Your task to perform on an android device: Add razer blade to the cart on bestbuy, then select checkout. Image 0: 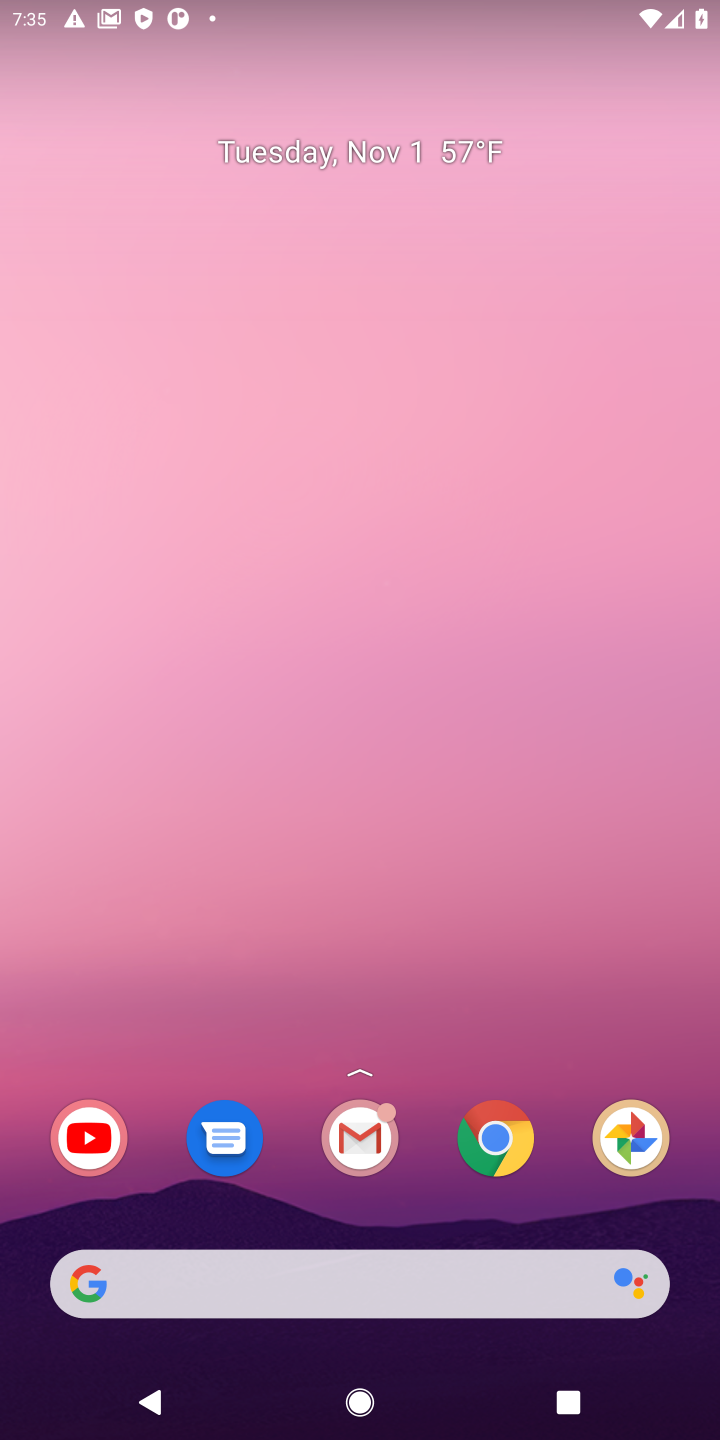
Step 0: click (498, 1129)
Your task to perform on an android device: Add razer blade to the cart on bestbuy, then select checkout. Image 1: 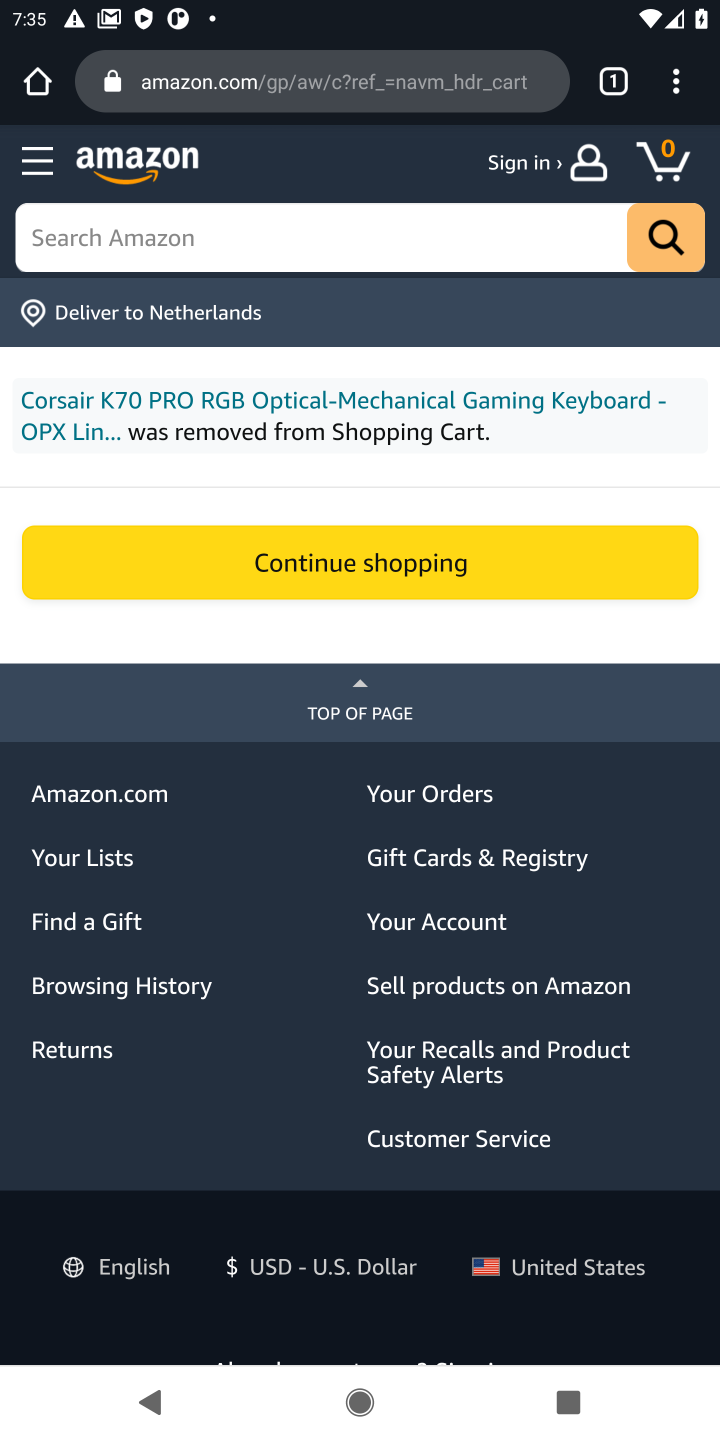
Step 1: click (298, 95)
Your task to perform on an android device: Add razer blade to the cart on bestbuy, then select checkout. Image 2: 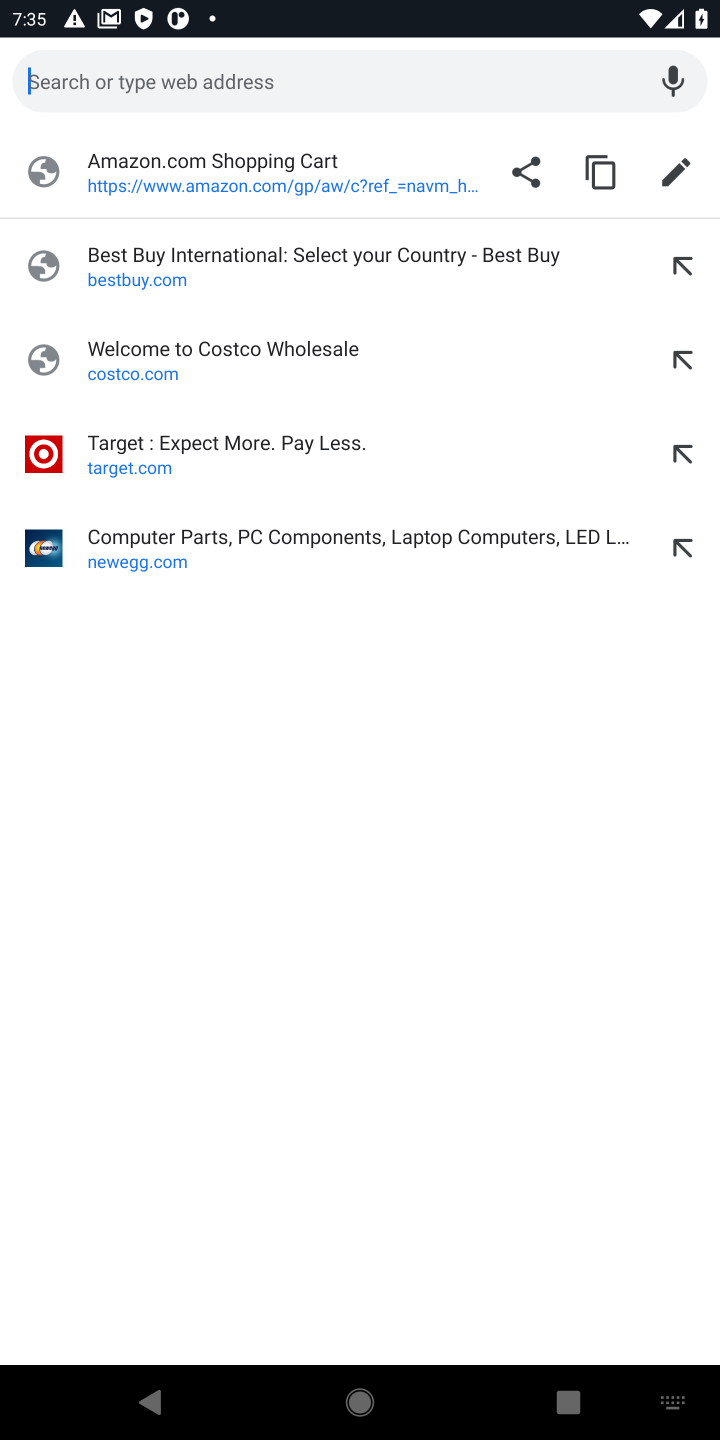
Step 2: click (163, 92)
Your task to perform on an android device: Add razer blade to the cart on bestbuy, then select checkout. Image 3: 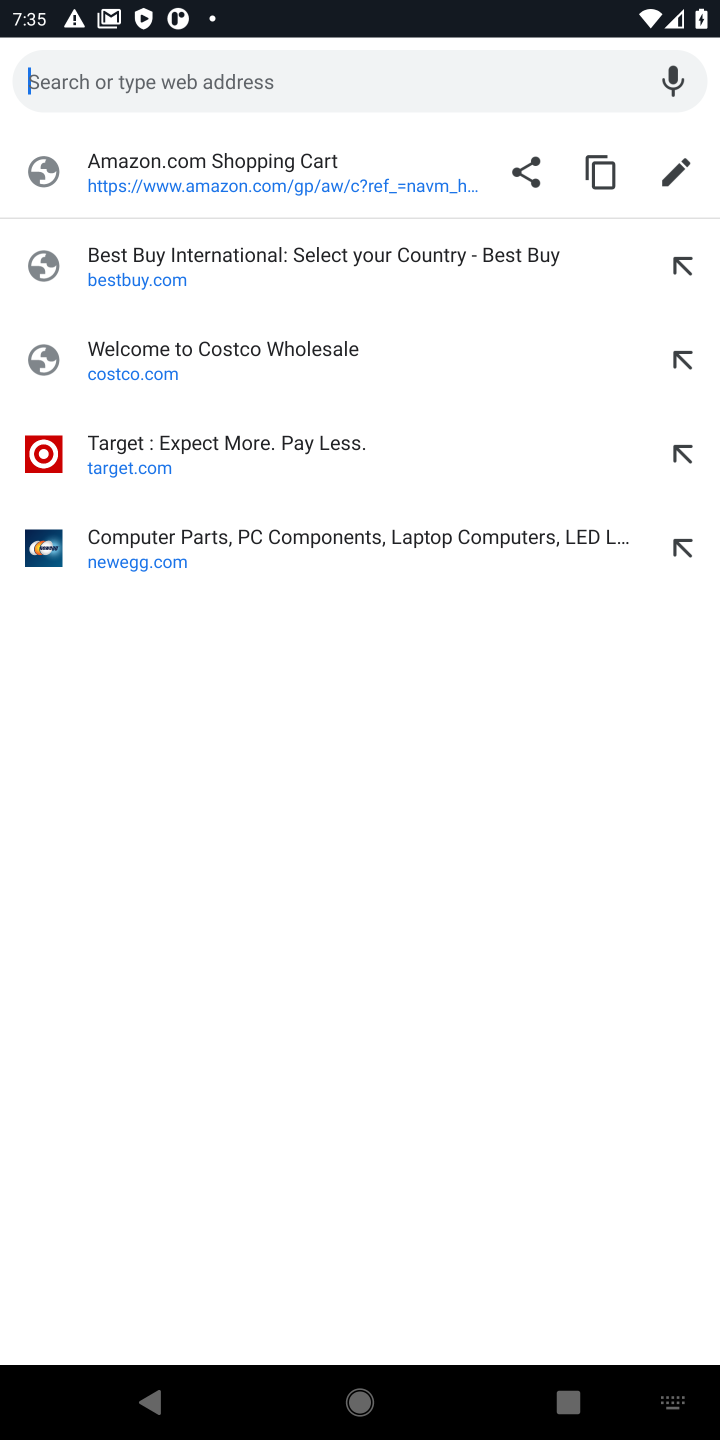
Step 3: click (137, 86)
Your task to perform on an android device: Add razer blade to the cart on bestbuy, then select checkout. Image 4: 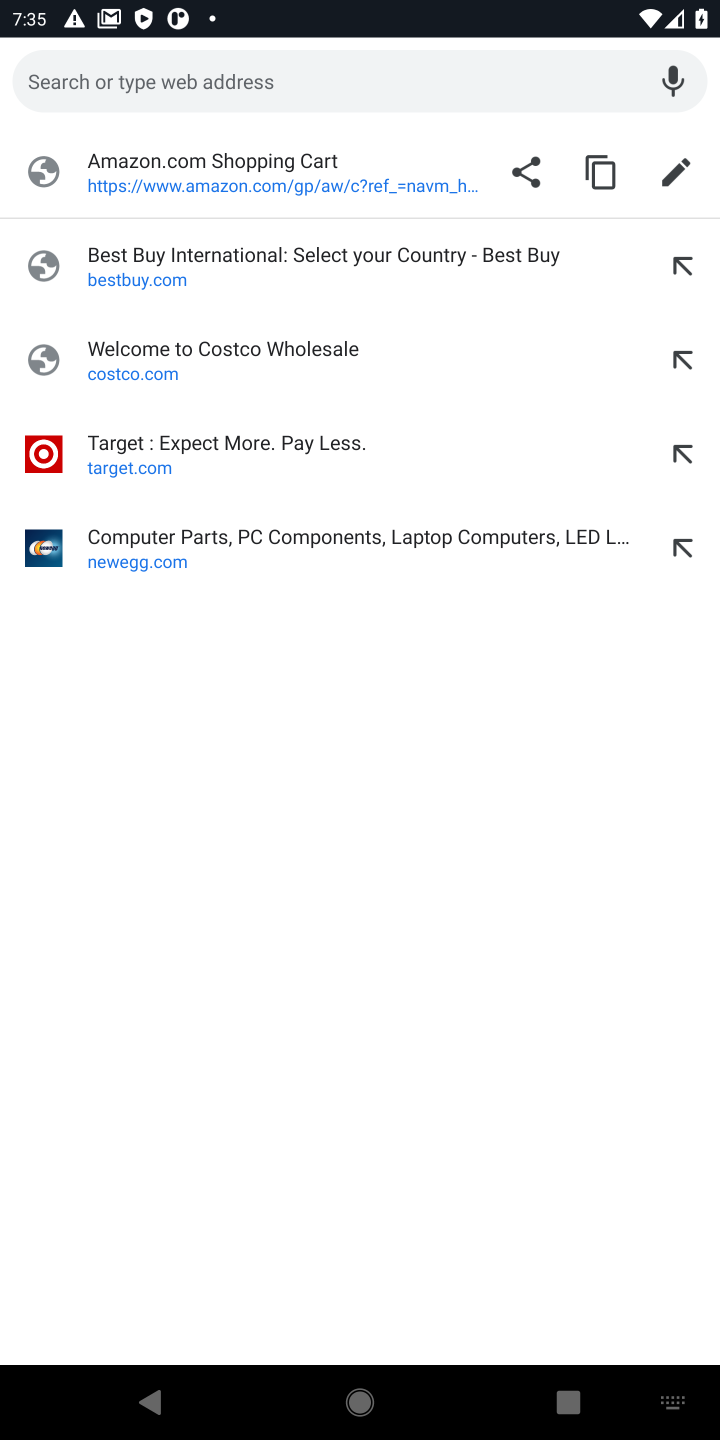
Step 4: type "bestbuy.com"
Your task to perform on an android device: Add razer blade to the cart on bestbuy, then select checkout. Image 5: 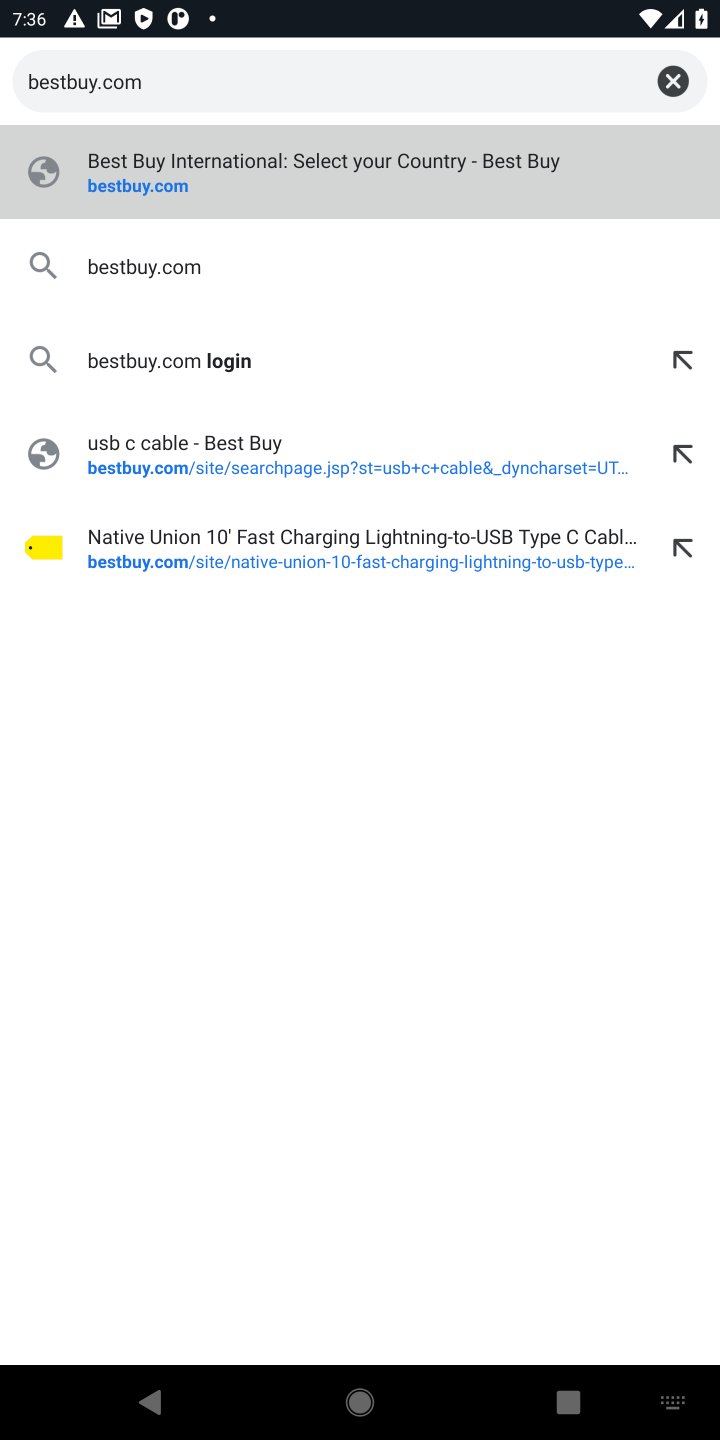
Step 5: click (128, 197)
Your task to perform on an android device: Add razer blade to the cart on bestbuy, then select checkout. Image 6: 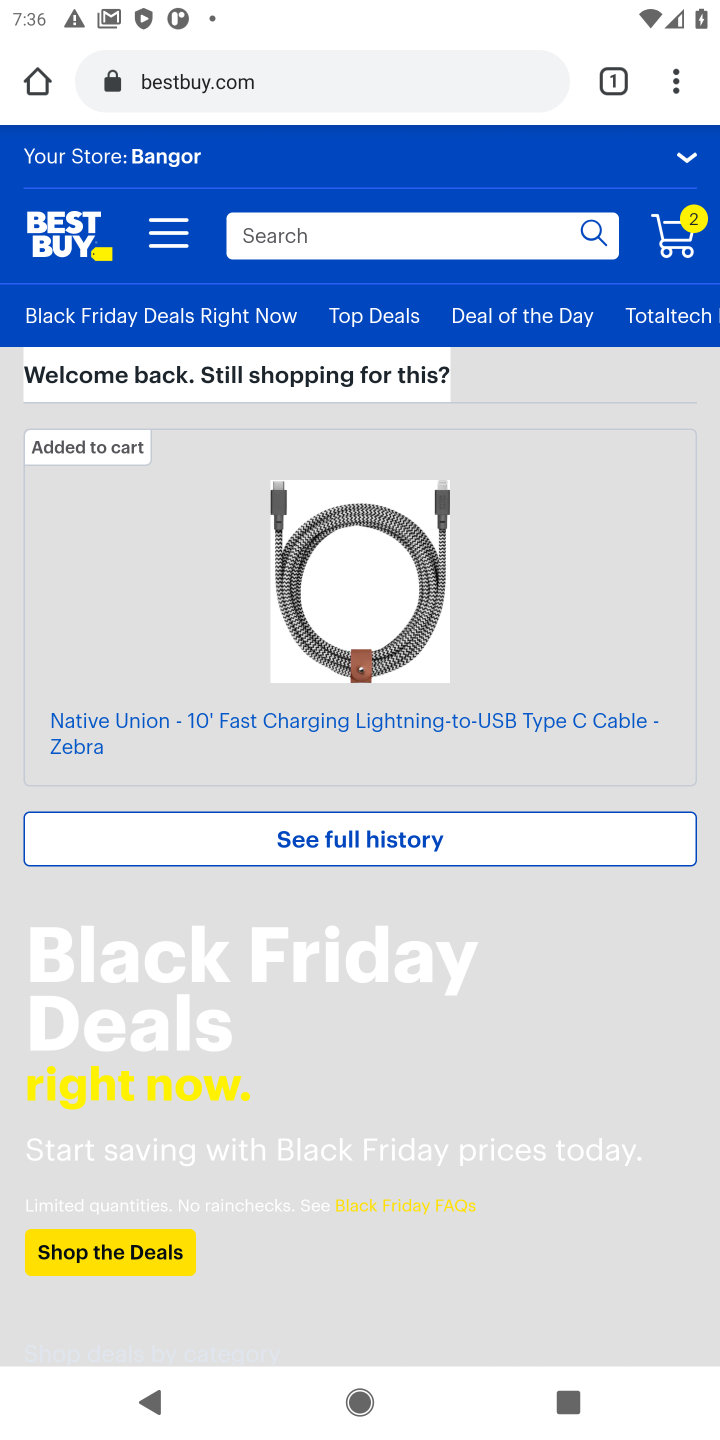
Step 6: click (340, 234)
Your task to perform on an android device: Add razer blade to the cart on bestbuy, then select checkout. Image 7: 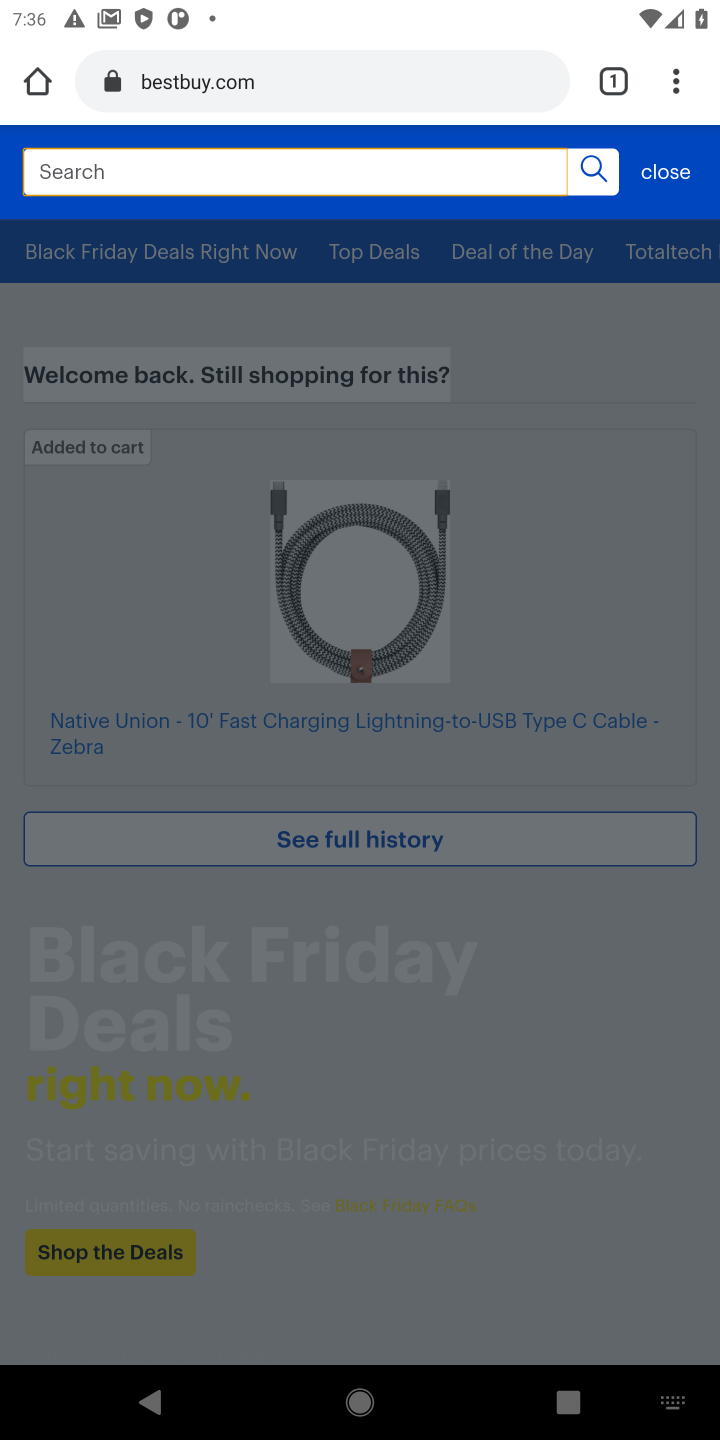
Step 7: type "razer blade"
Your task to perform on an android device: Add razer blade to the cart on bestbuy, then select checkout. Image 8: 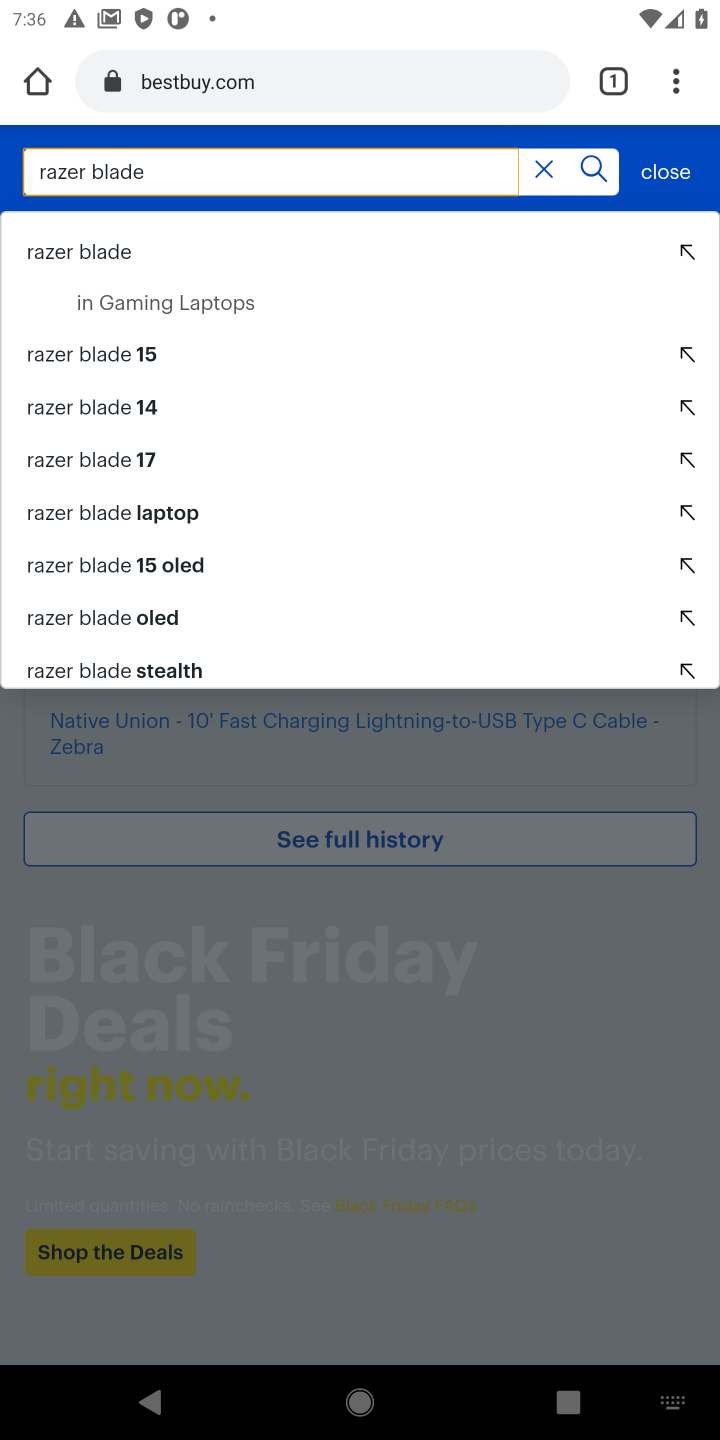
Step 8: click (69, 249)
Your task to perform on an android device: Add razer blade to the cart on bestbuy, then select checkout. Image 9: 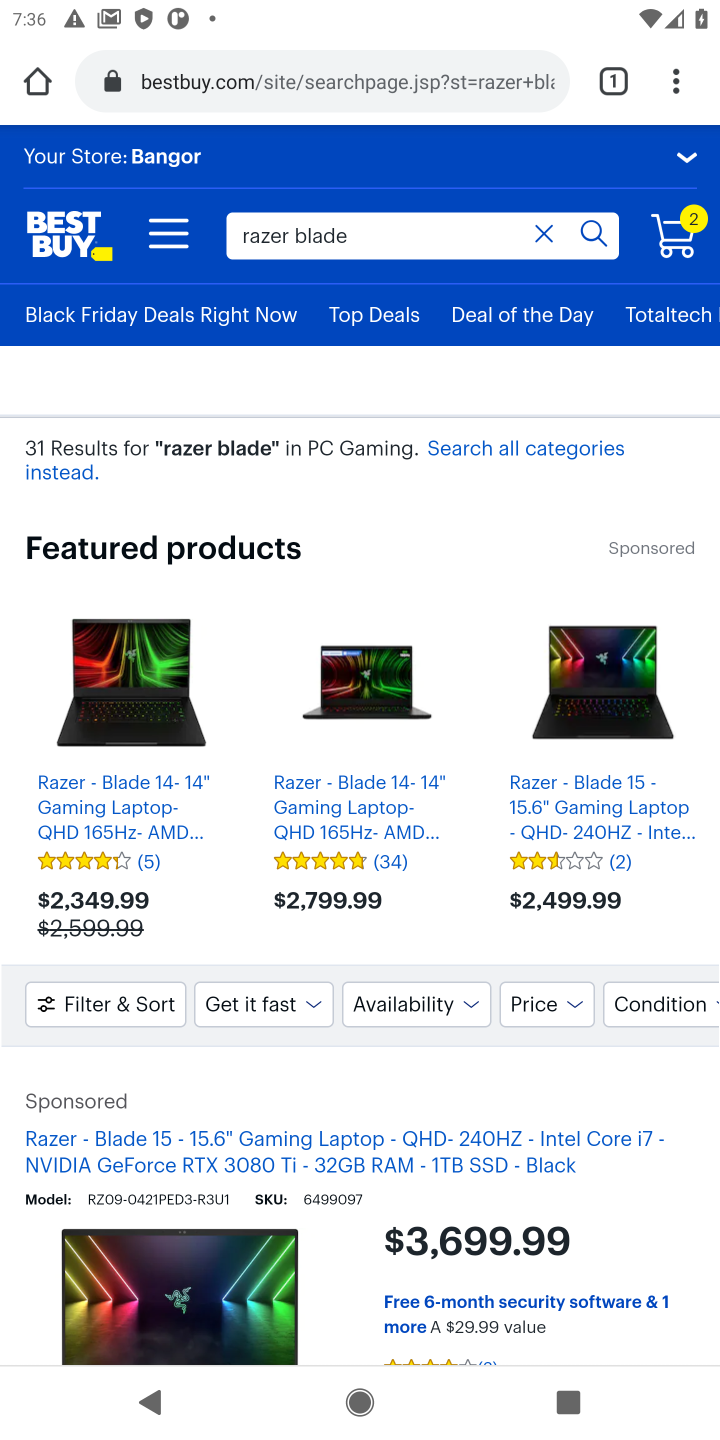
Step 9: drag from (323, 1062) to (283, 655)
Your task to perform on an android device: Add razer blade to the cart on bestbuy, then select checkout. Image 10: 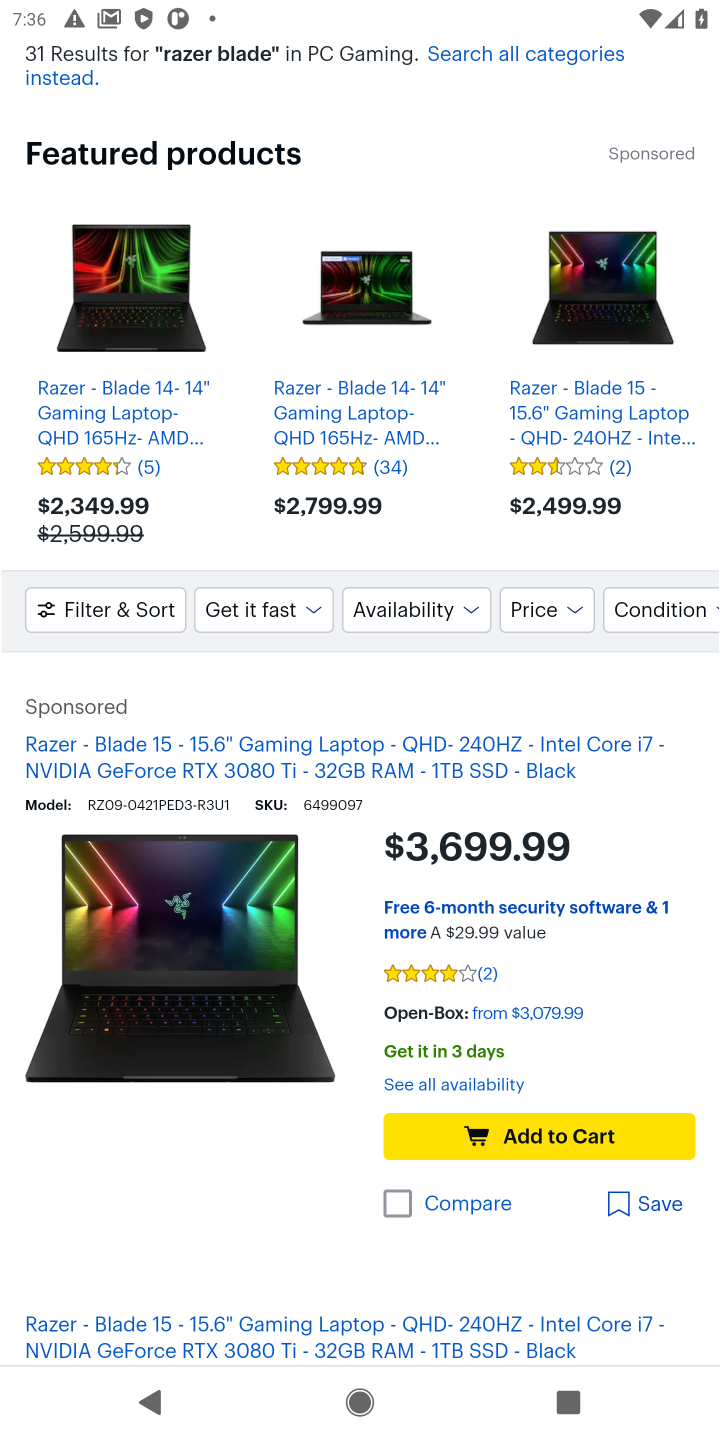
Step 10: click (241, 976)
Your task to perform on an android device: Add razer blade to the cart on bestbuy, then select checkout. Image 11: 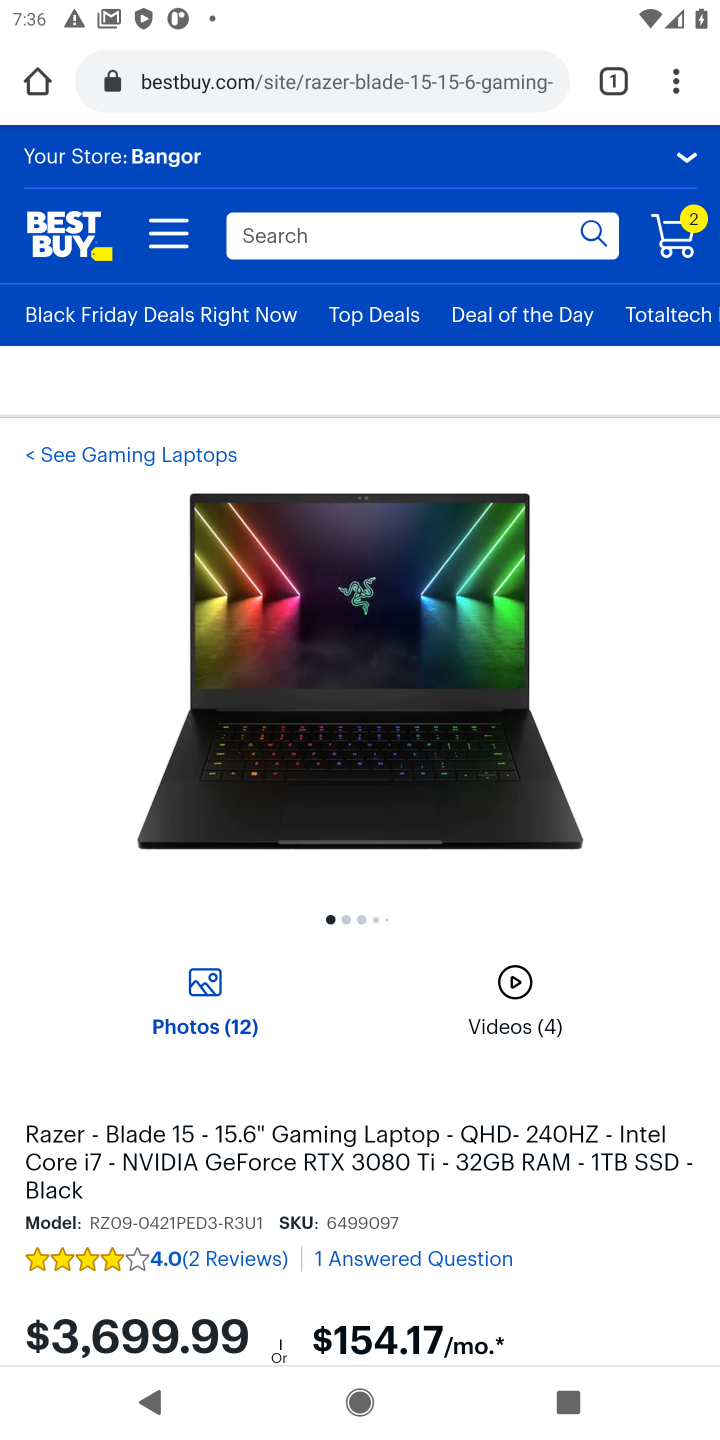
Step 11: drag from (365, 1107) to (324, 508)
Your task to perform on an android device: Add razer blade to the cart on bestbuy, then select checkout. Image 12: 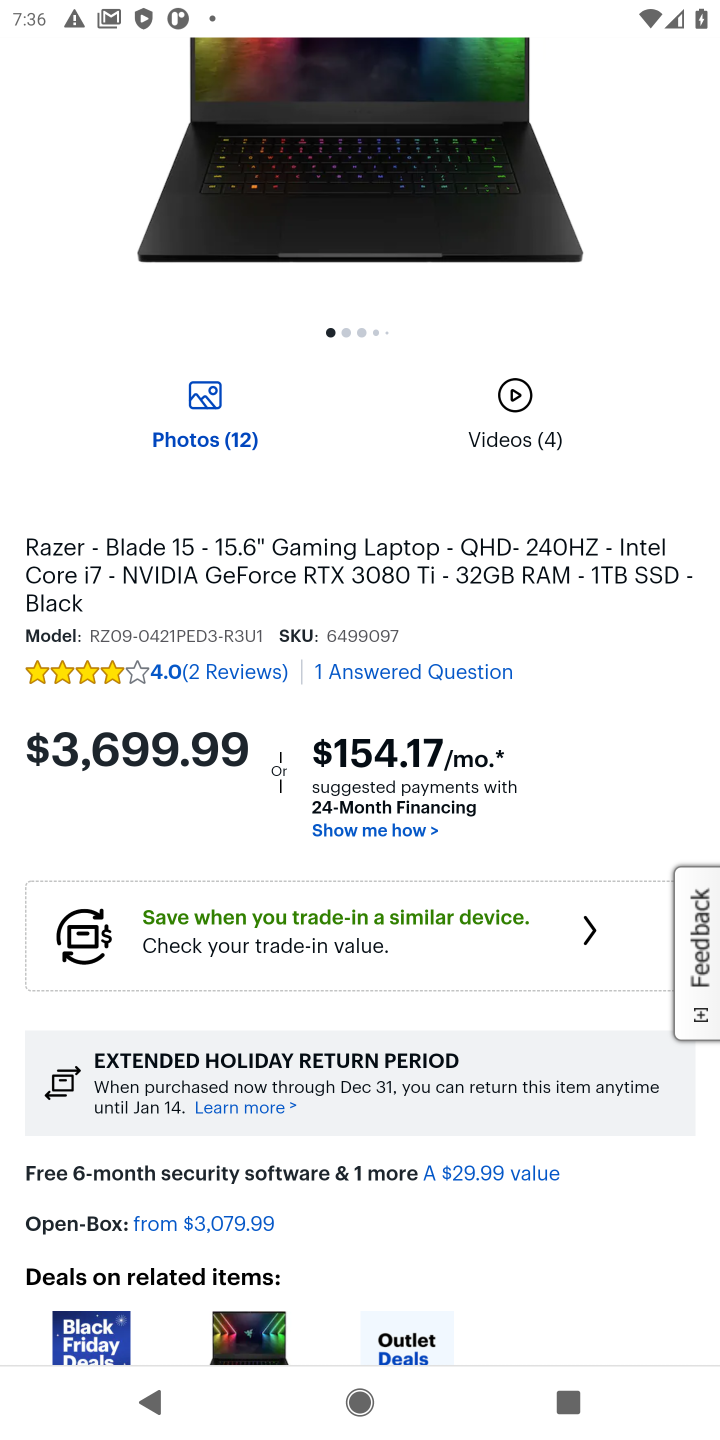
Step 12: drag from (310, 828) to (334, 390)
Your task to perform on an android device: Add razer blade to the cart on bestbuy, then select checkout. Image 13: 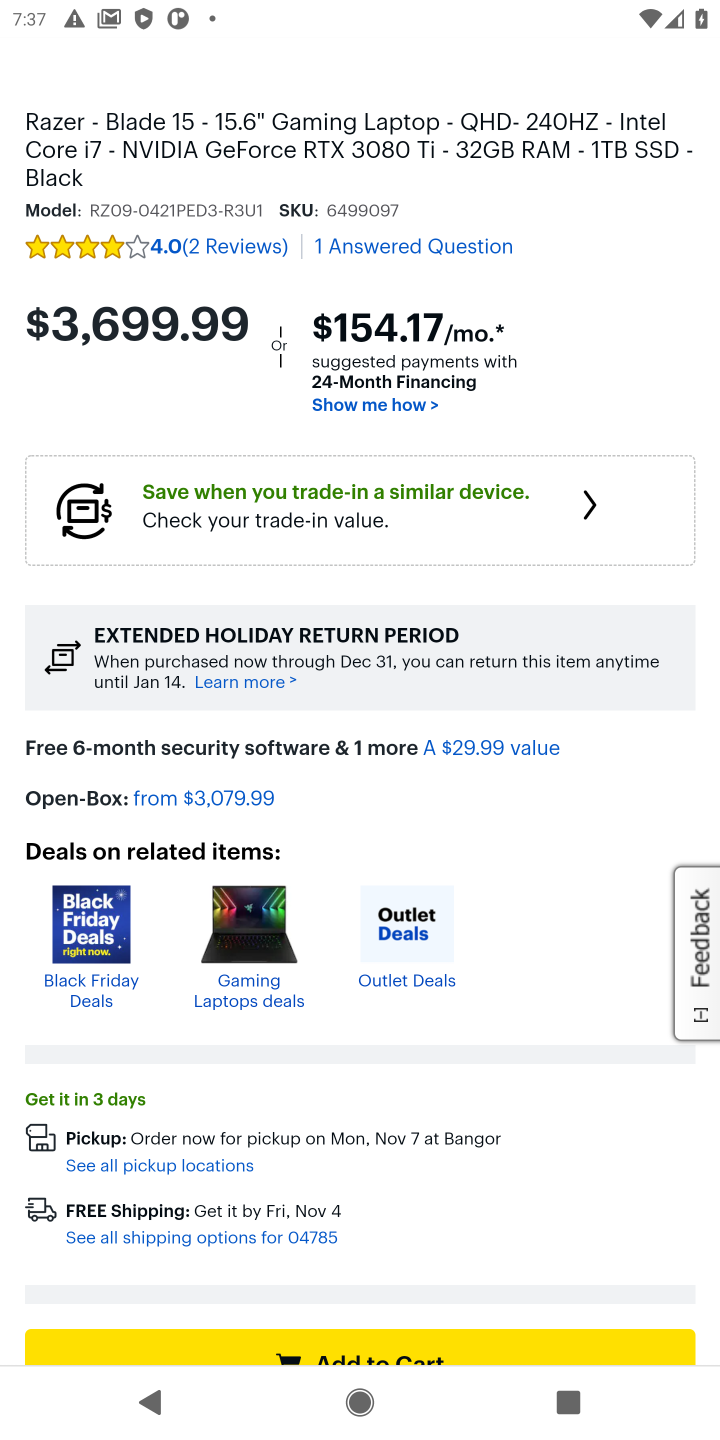
Step 13: drag from (340, 1031) to (364, 512)
Your task to perform on an android device: Add razer blade to the cart on bestbuy, then select checkout. Image 14: 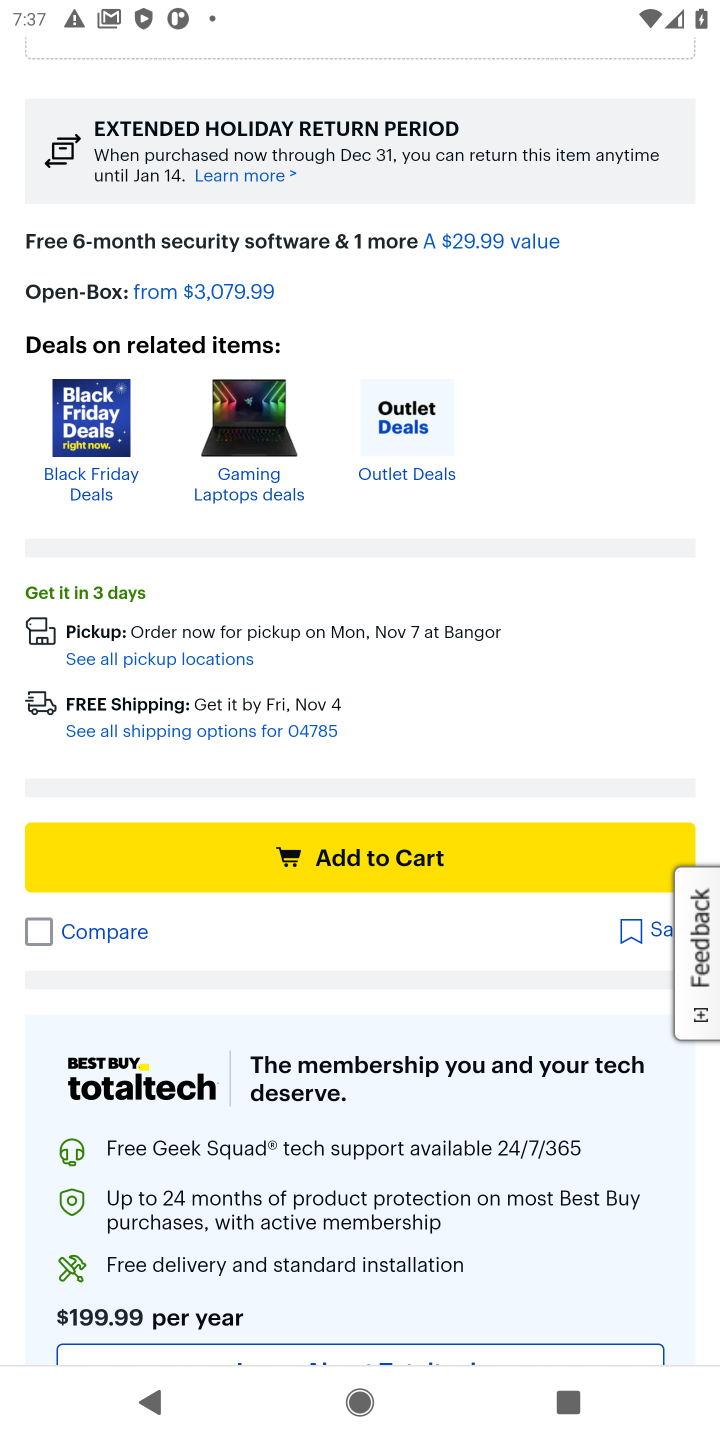
Step 14: click (365, 860)
Your task to perform on an android device: Add razer blade to the cart on bestbuy, then select checkout. Image 15: 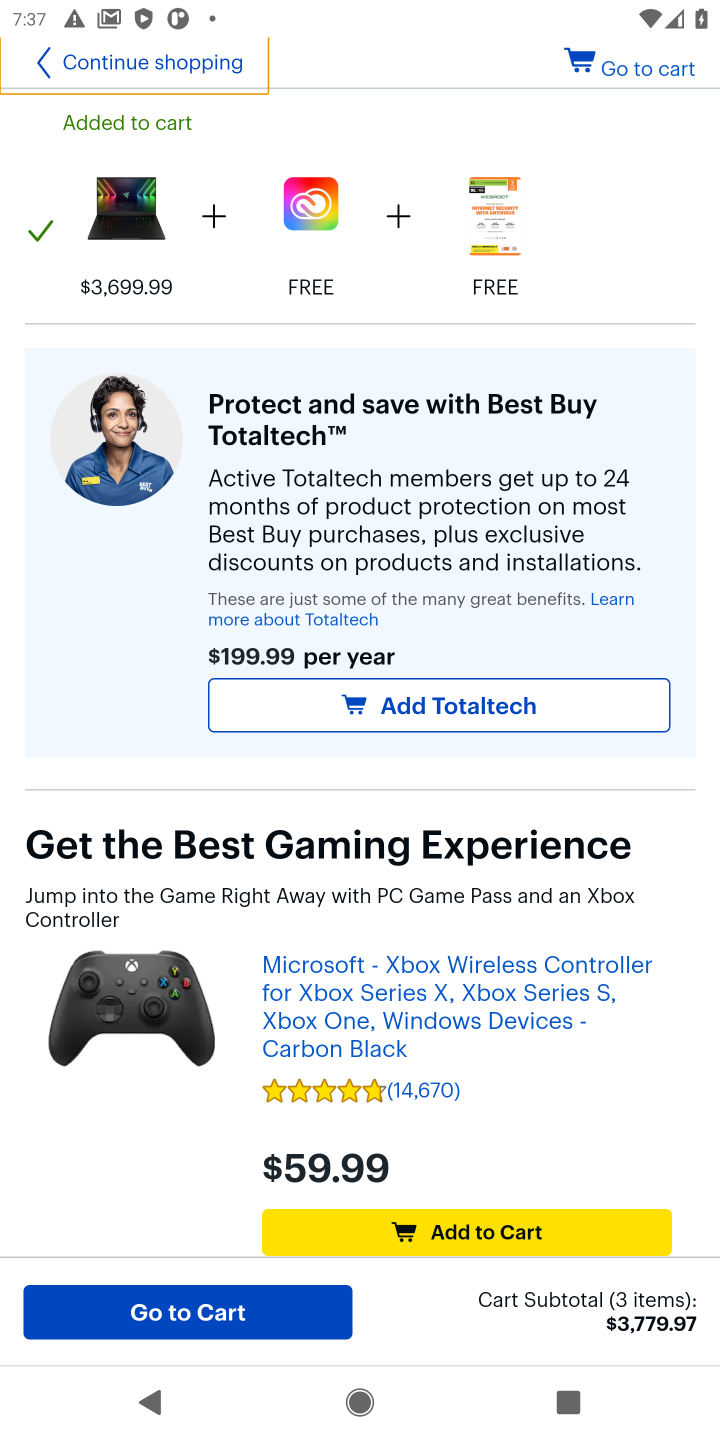
Step 15: click (157, 1319)
Your task to perform on an android device: Add razer blade to the cart on bestbuy, then select checkout. Image 16: 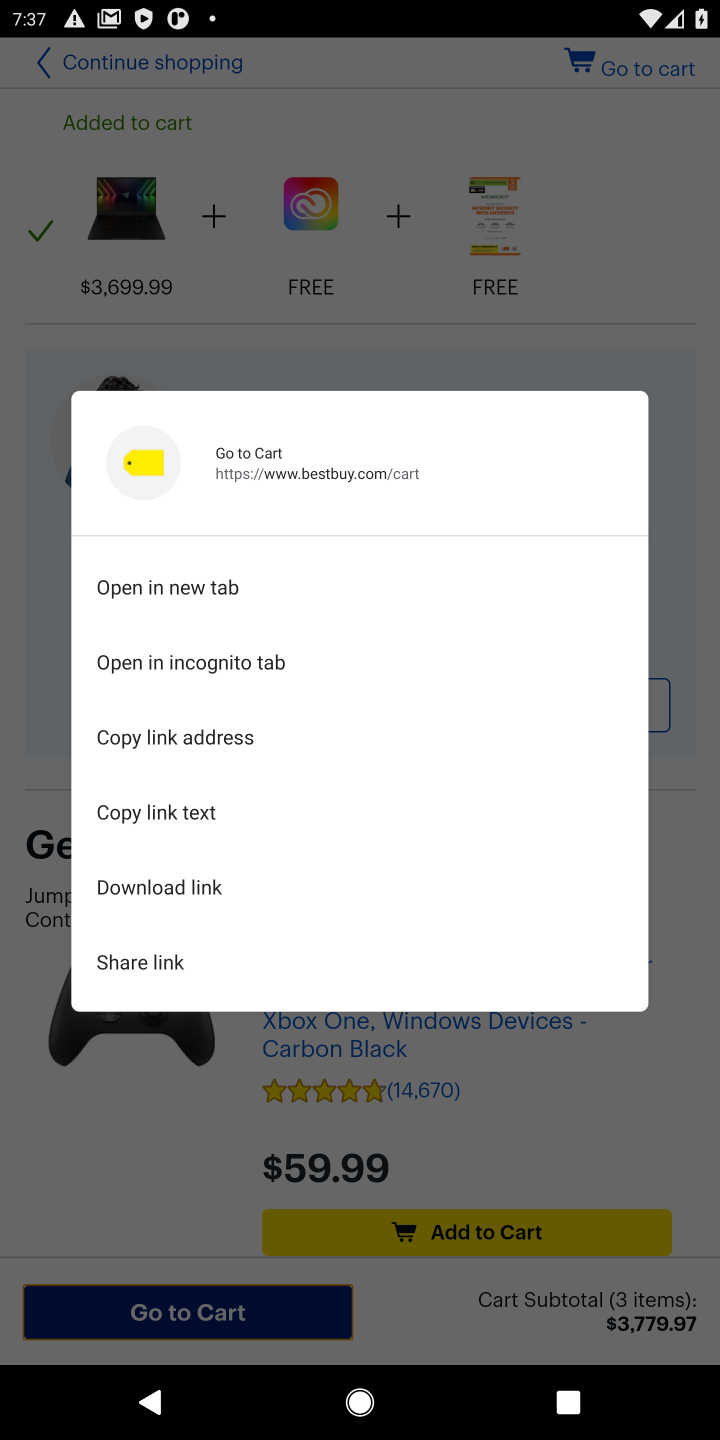
Step 16: click (157, 1319)
Your task to perform on an android device: Add razer blade to the cart on bestbuy, then select checkout. Image 17: 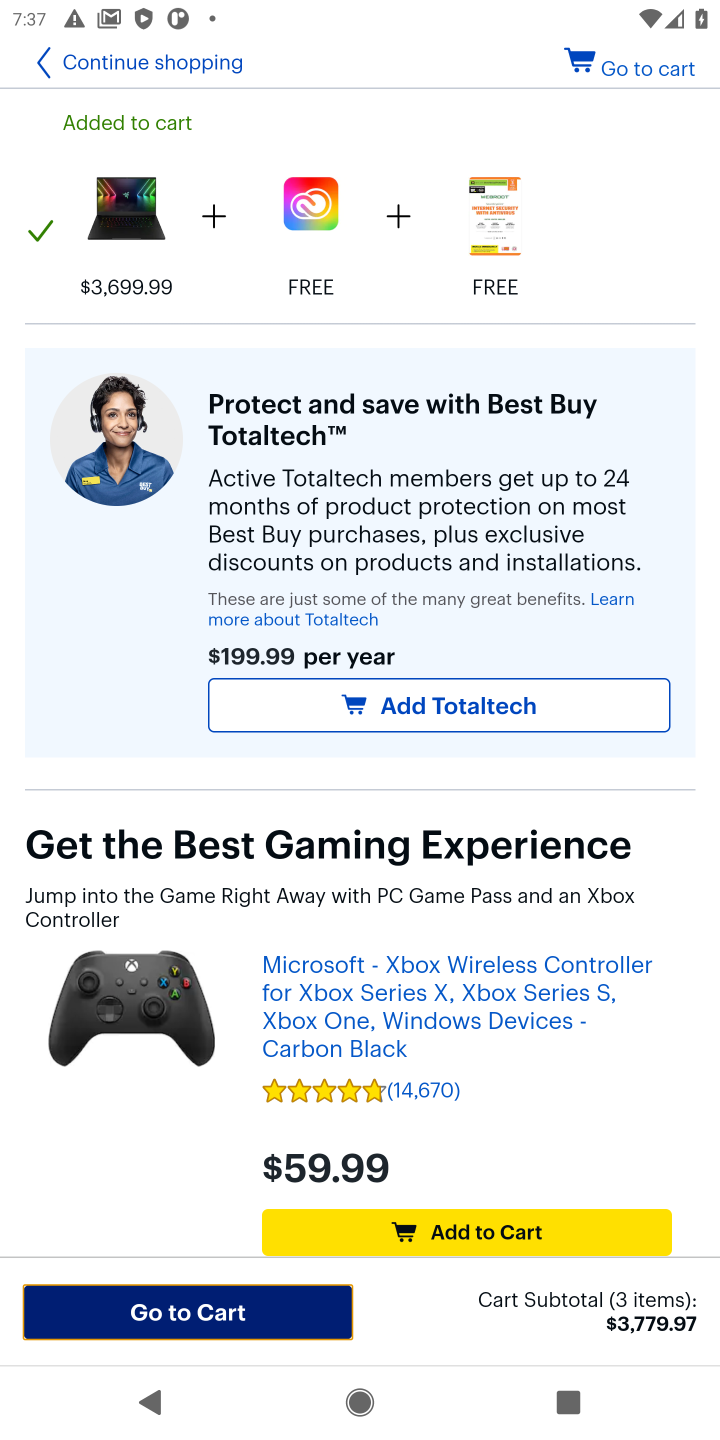
Step 17: click (185, 1313)
Your task to perform on an android device: Add razer blade to the cart on bestbuy, then select checkout. Image 18: 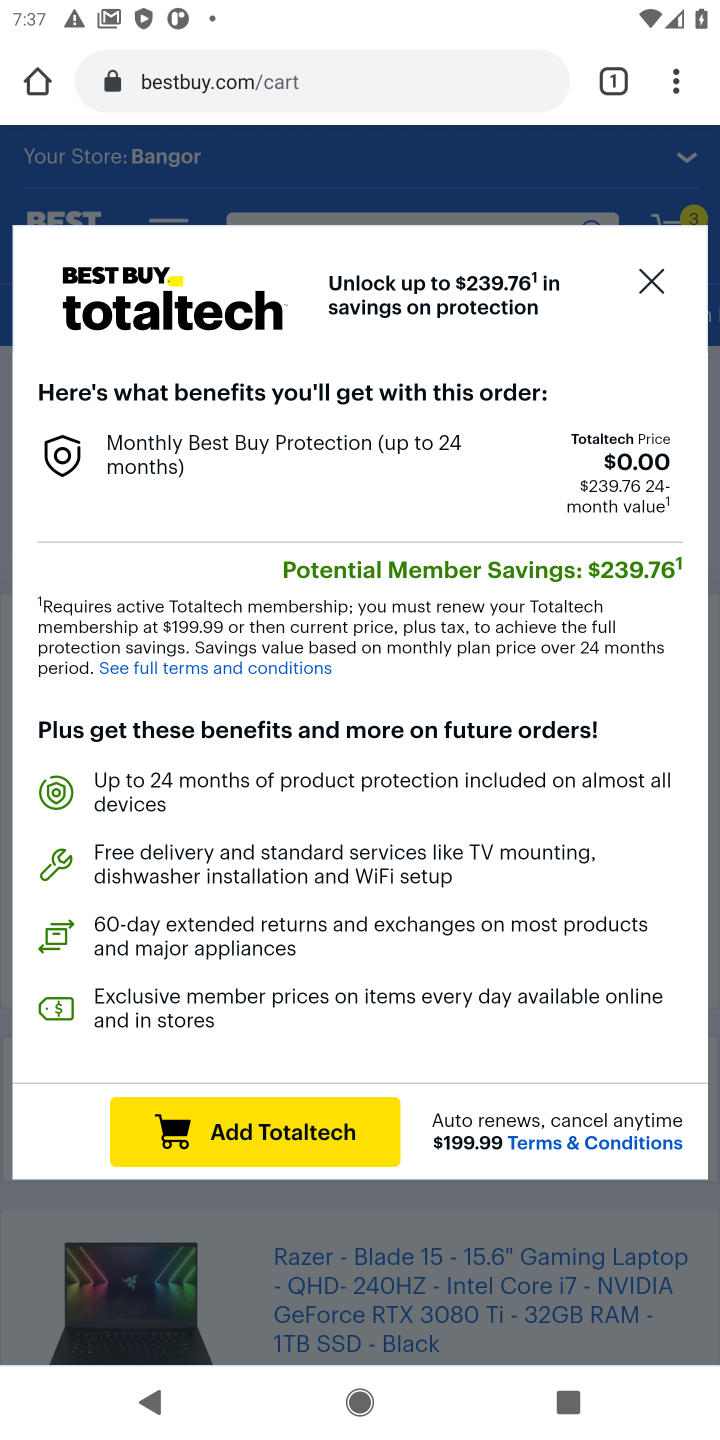
Step 18: click (650, 284)
Your task to perform on an android device: Add razer blade to the cart on bestbuy, then select checkout. Image 19: 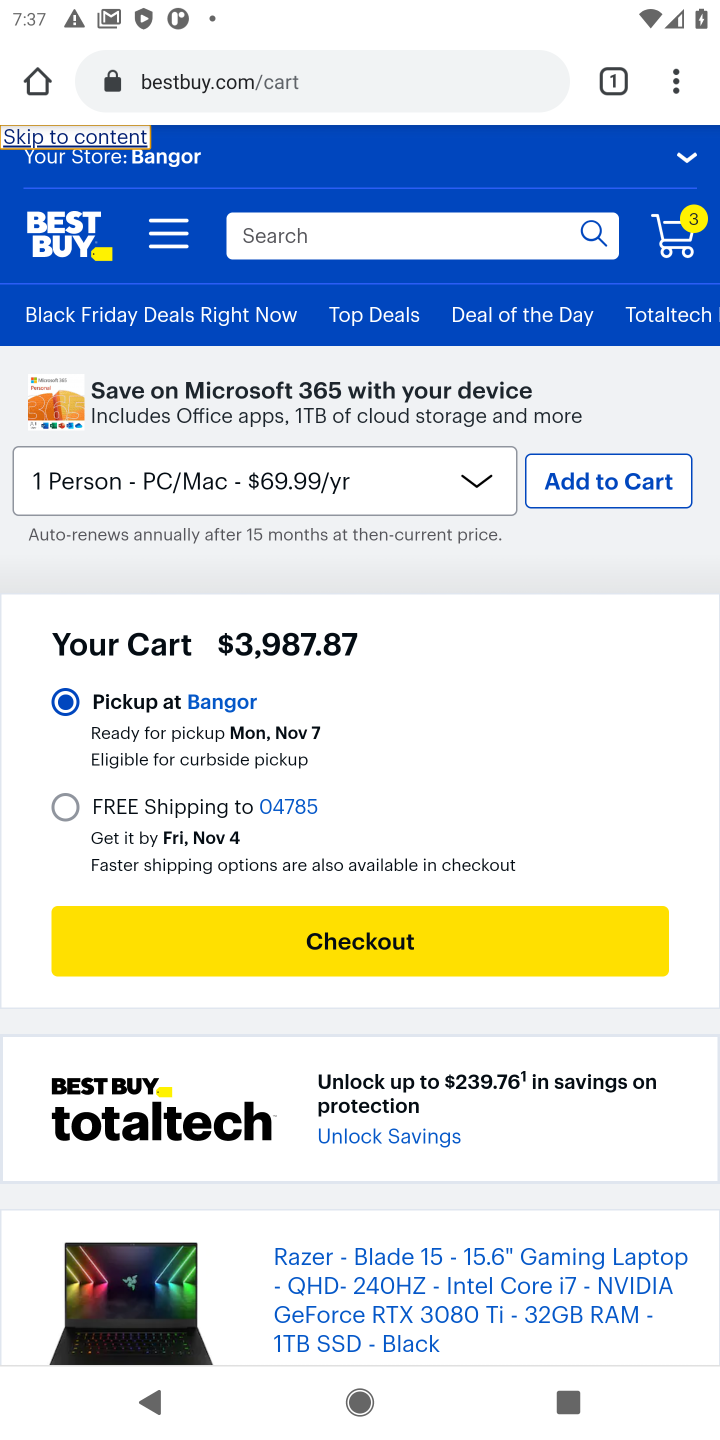
Step 19: click (369, 938)
Your task to perform on an android device: Add razer blade to the cart on bestbuy, then select checkout. Image 20: 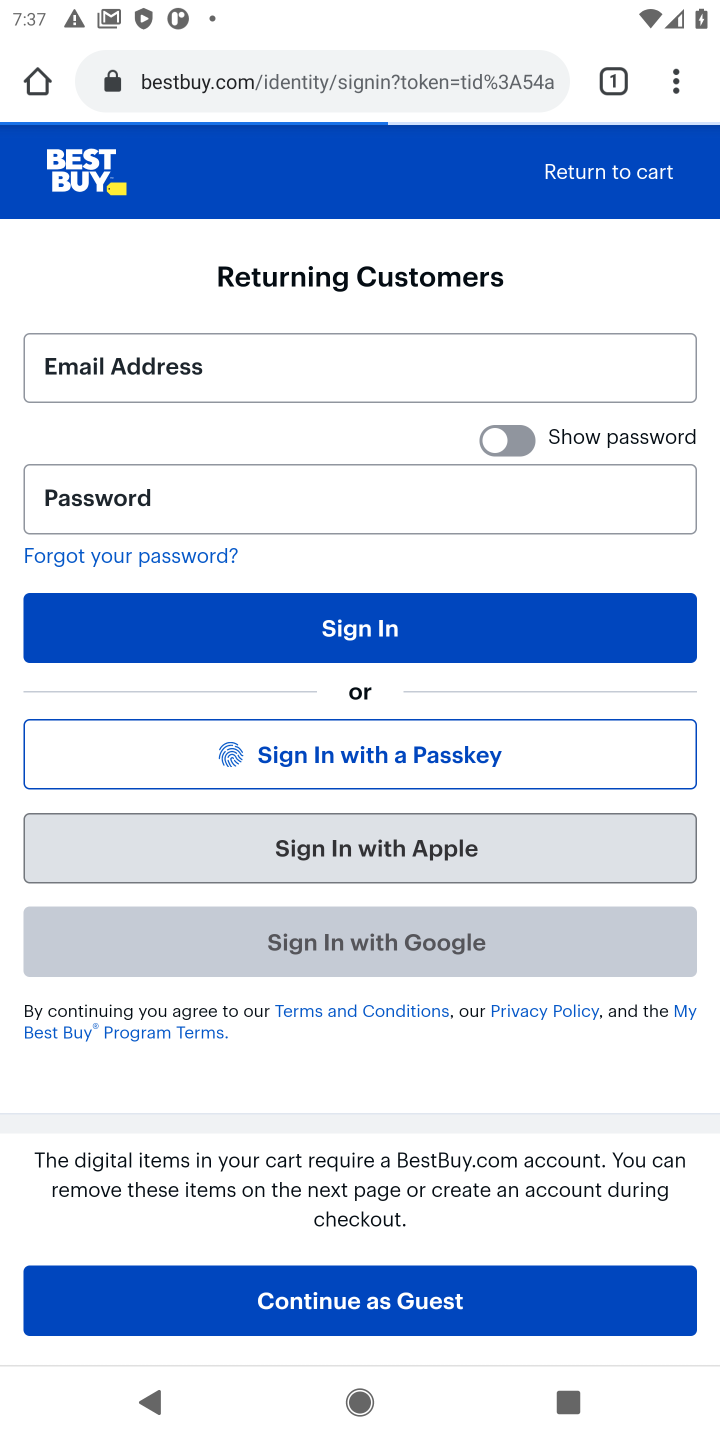
Step 20: task complete